Your task to perform on an android device: change notifications settings Image 0: 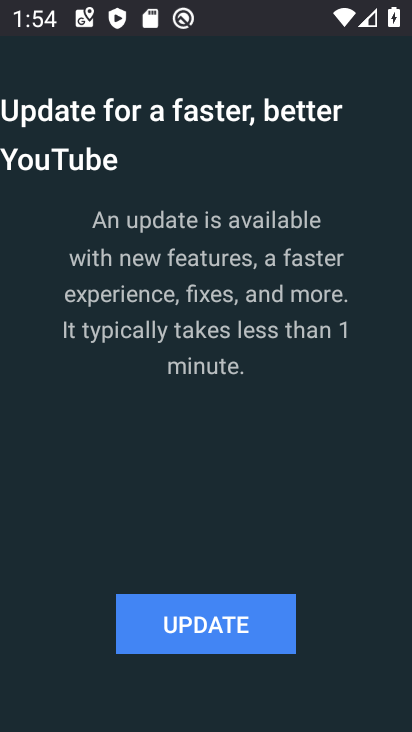
Step 0: press back button
Your task to perform on an android device: change notifications settings Image 1: 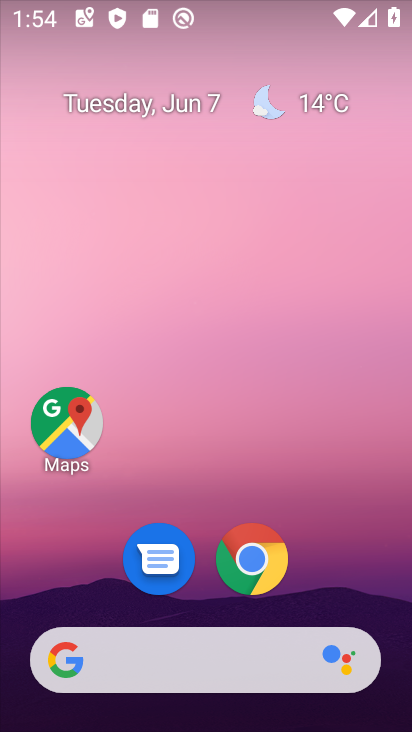
Step 1: drag from (322, 559) to (253, 46)
Your task to perform on an android device: change notifications settings Image 2: 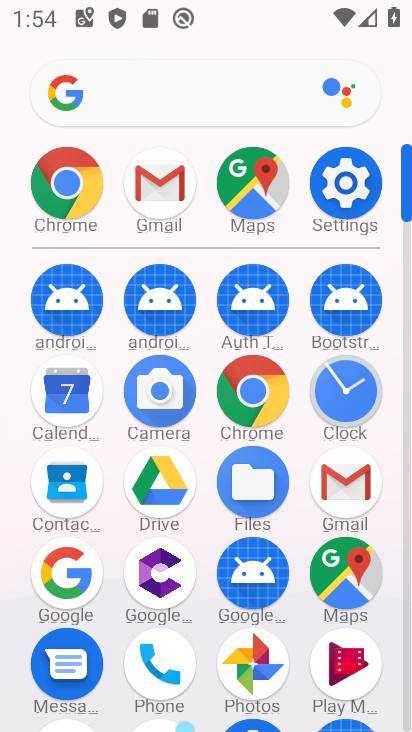
Step 2: click (347, 180)
Your task to perform on an android device: change notifications settings Image 3: 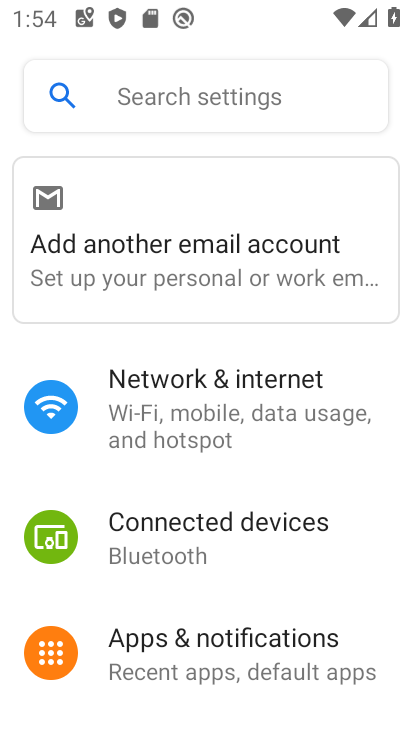
Step 3: click (213, 634)
Your task to perform on an android device: change notifications settings Image 4: 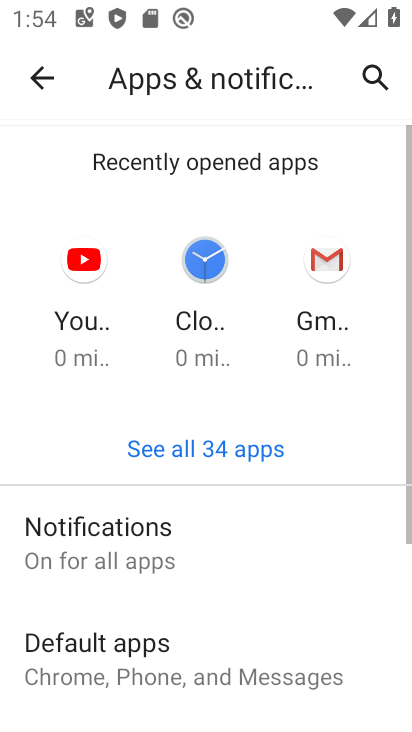
Step 4: drag from (259, 570) to (258, 214)
Your task to perform on an android device: change notifications settings Image 5: 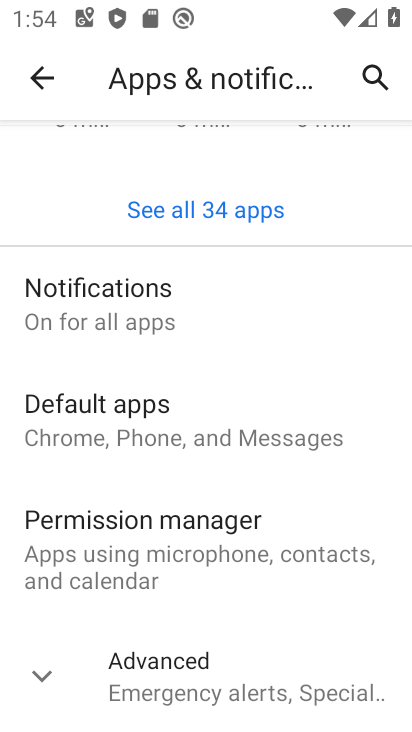
Step 5: click (34, 664)
Your task to perform on an android device: change notifications settings Image 6: 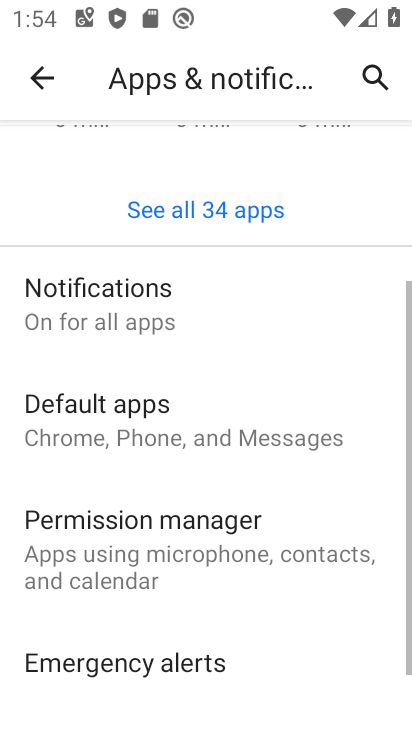
Step 6: drag from (280, 624) to (303, 247)
Your task to perform on an android device: change notifications settings Image 7: 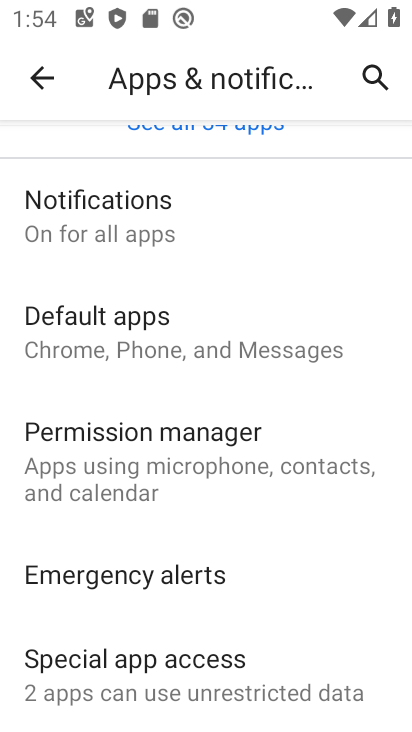
Step 7: drag from (270, 573) to (282, 233)
Your task to perform on an android device: change notifications settings Image 8: 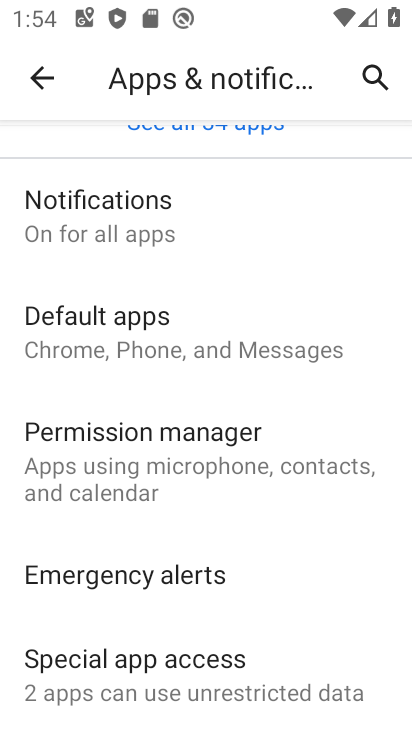
Step 8: click (182, 222)
Your task to perform on an android device: change notifications settings Image 9: 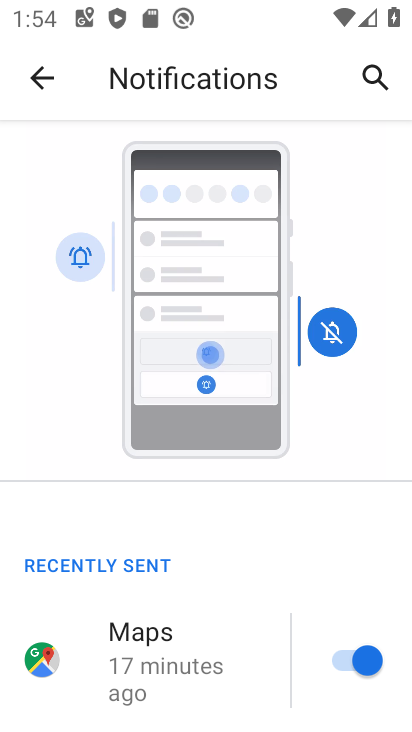
Step 9: drag from (190, 557) to (230, 150)
Your task to perform on an android device: change notifications settings Image 10: 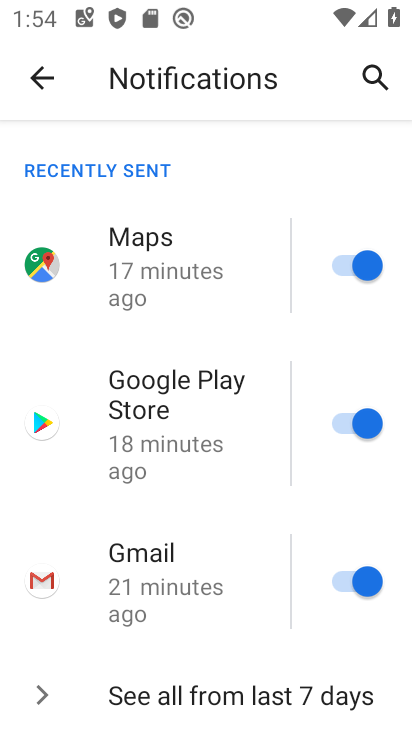
Step 10: drag from (236, 558) to (235, 192)
Your task to perform on an android device: change notifications settings Image 11: 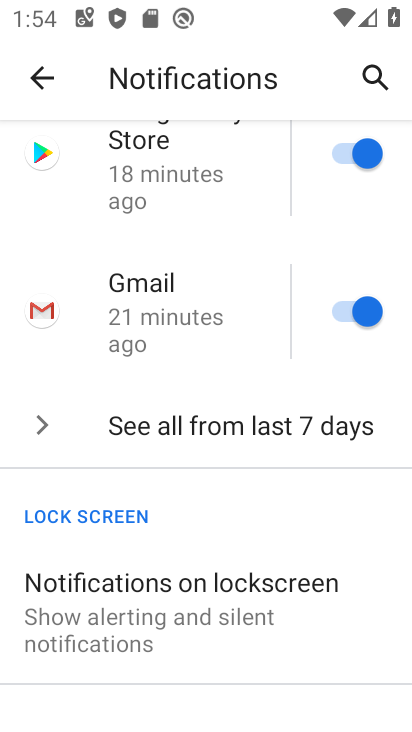
Step 11: drag from (171, 512) to (207, 174)
Your task to perform on an android device: change notifications settings Image 12: 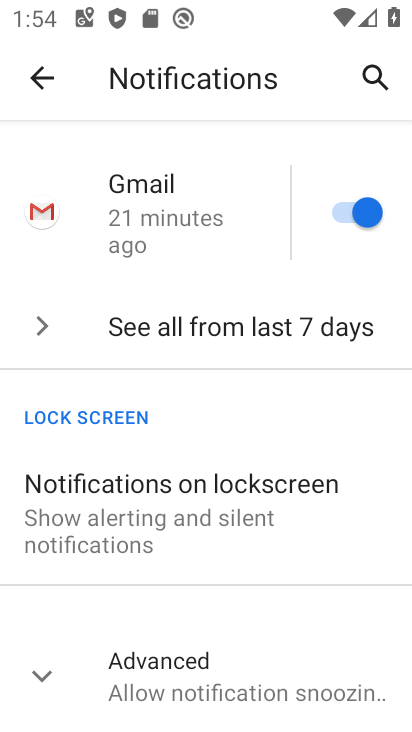
Step 12: click (31, 674)
Your task to perform on an android device: change notifications settings Image 13: 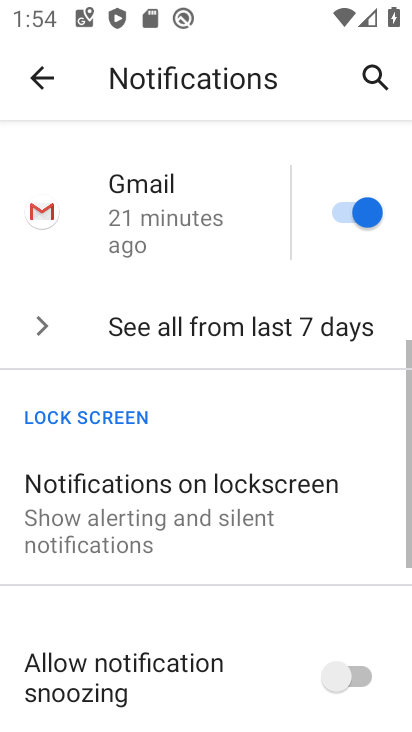
Step 13: task complete